Your task to perform on an android device: choose inbox layout in the gmail app Image 0: 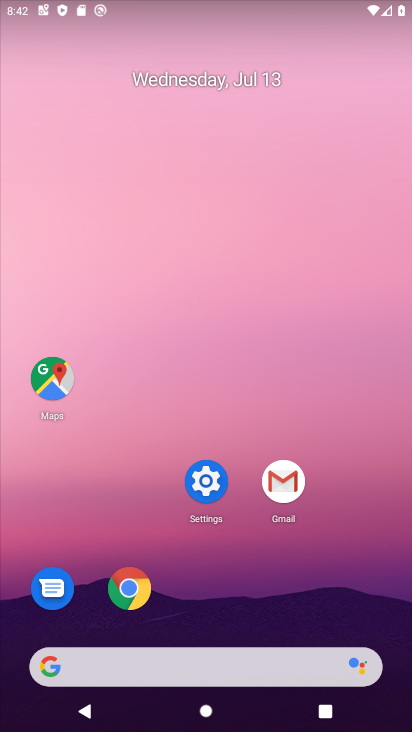
Step 0: click (272, 494)
Your task to perform on an android device: choose inbox layout in the gmail app Image 1: 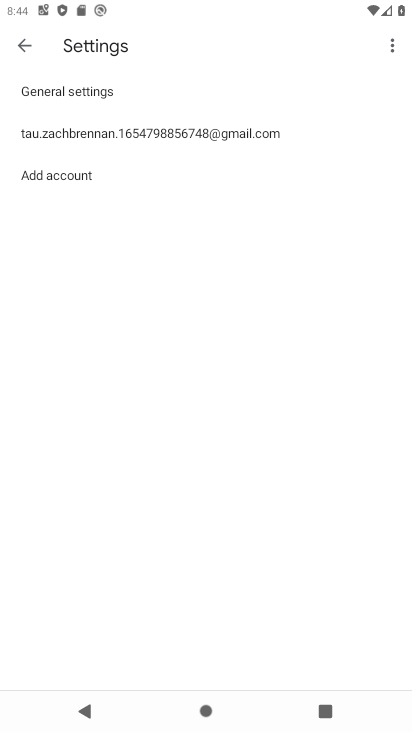
Step 1: task complete